Your task to perform on an android device: Go to Google maps Image 0: 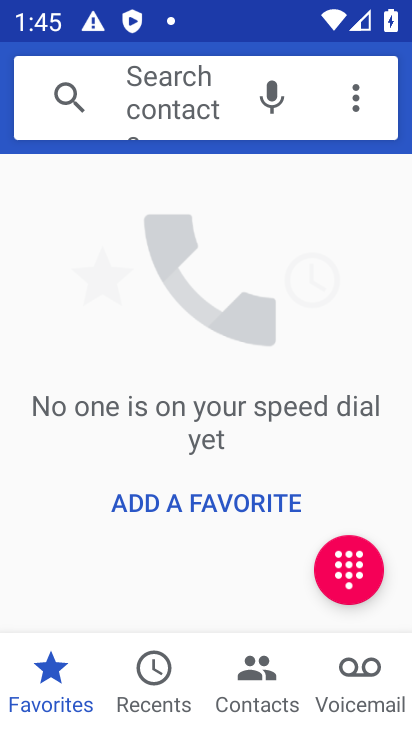
Step 0: press home button
Your task to perform on an android device: Go to Google maps Image 1: 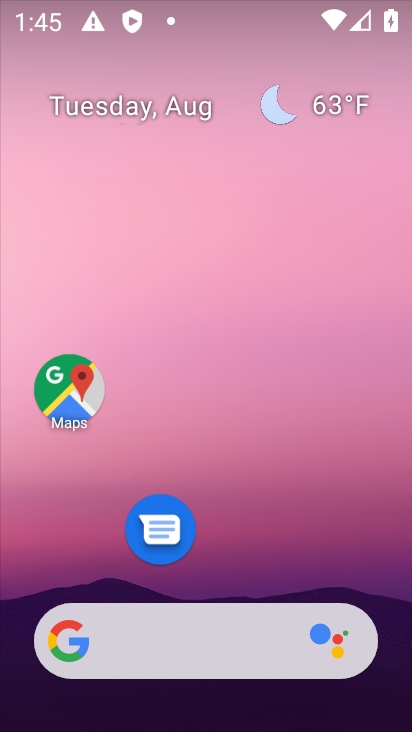
Step 1: click (65, 381)
Your task to perform on an android device: Go to Google maps Image 2: 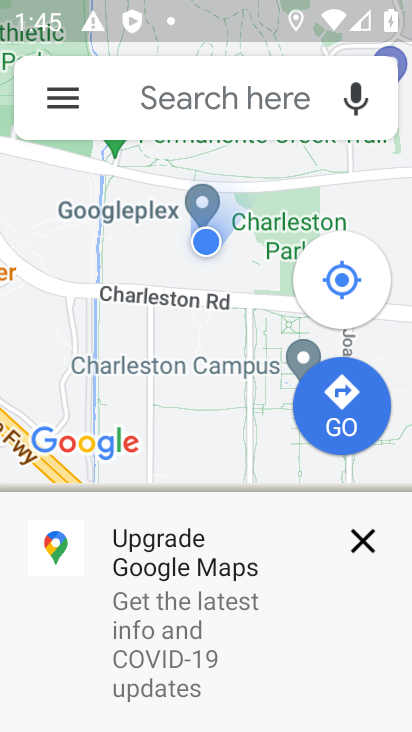
Step 2: task complete